Your task to perform on an android device: turn off location Image 0: 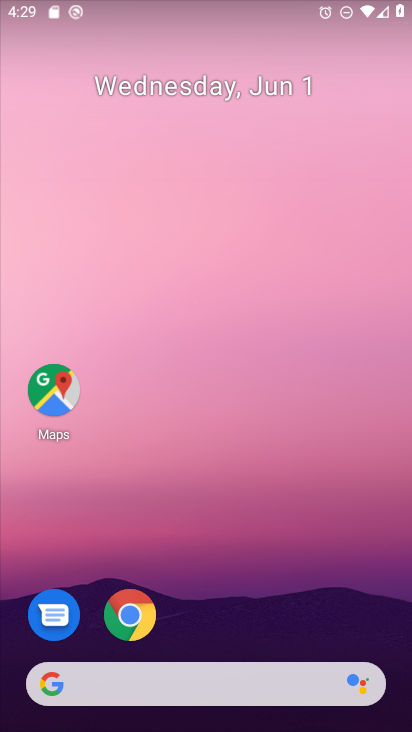
Step 0: press home button
Your task to perform on an android device: turn off location Image 1: 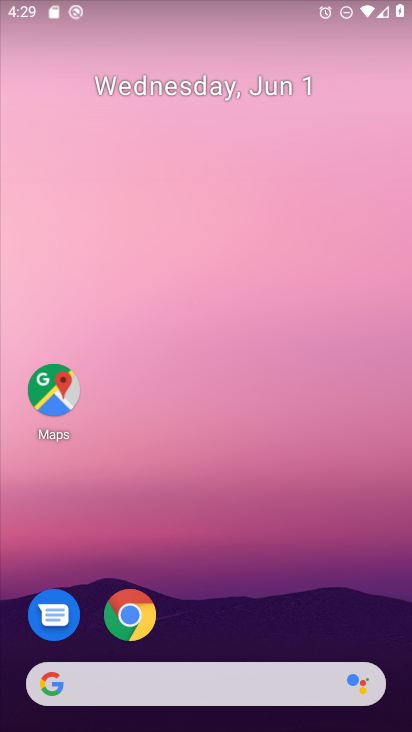
Step 1: drag from (236, 648) to (273, 94)
Your task to perform on an android device: turn off location Image 2: 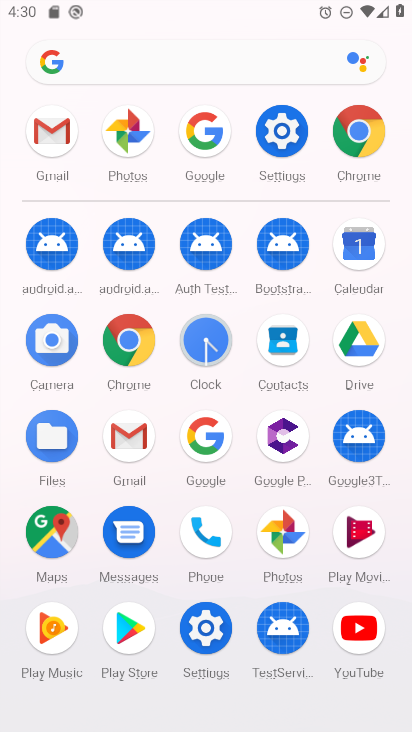
Step 2: click (281, 127)
Your task to perform on an android device: turn off location Image 3: 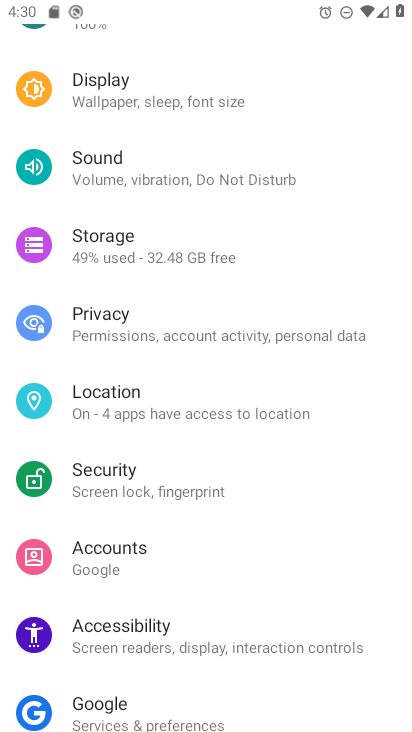
Step 3: click (154, 382)
Your task to perform on an android device: turn off location Image 4: 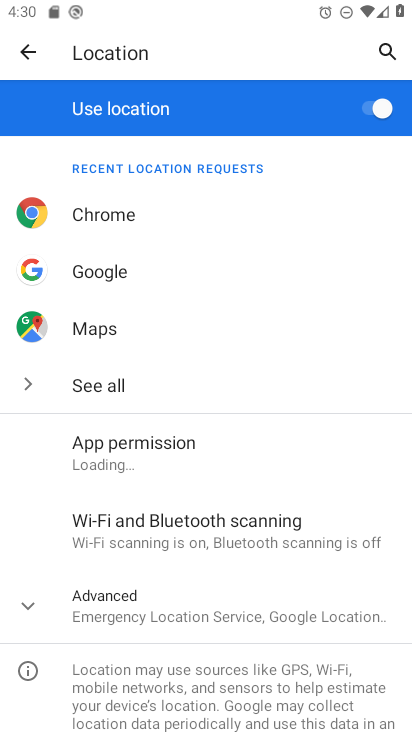
Step 4: click (370, 116)
Your task to perform on an android device: turn off location Image 5: 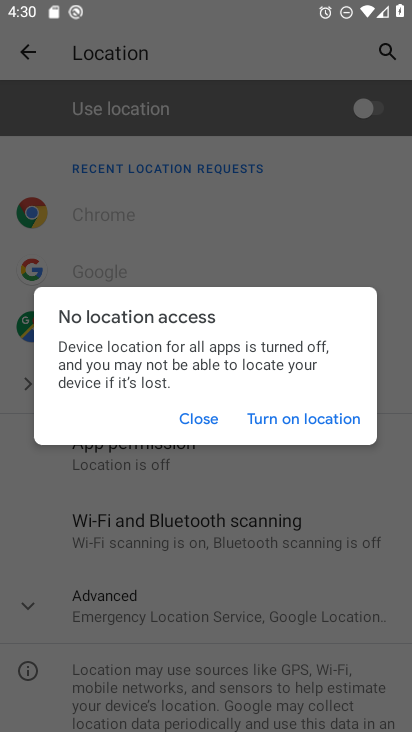
Step 5: click (206, 416)
Your task to perform on an android device: turn off location Image 6: 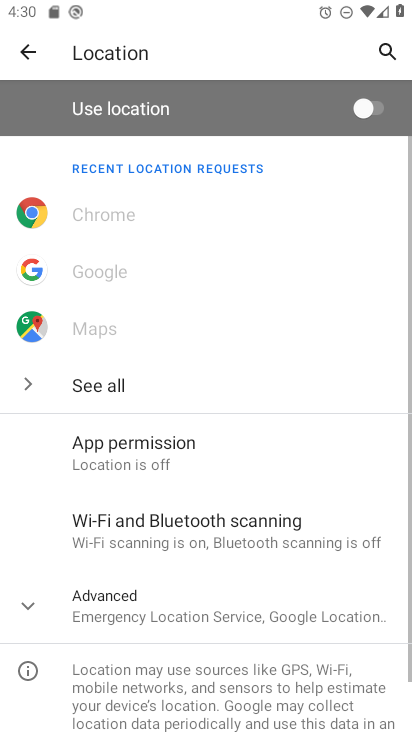
Step 6: task complete